Your task to perform on an android device: What is the news today? Image 0: 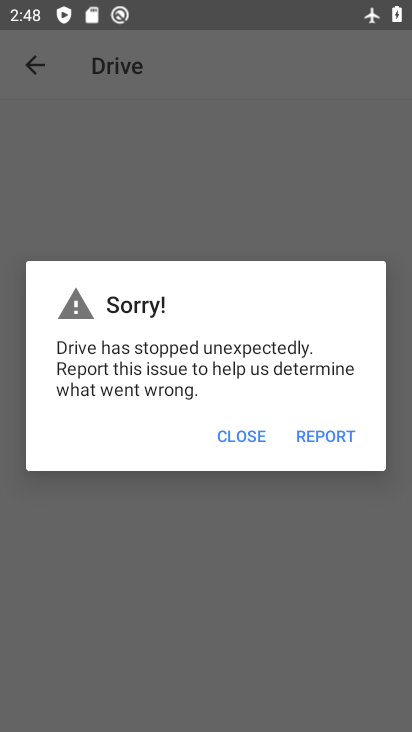
Step 0: press home button
Your task to perform on an android device: What is the news today? Image 1: 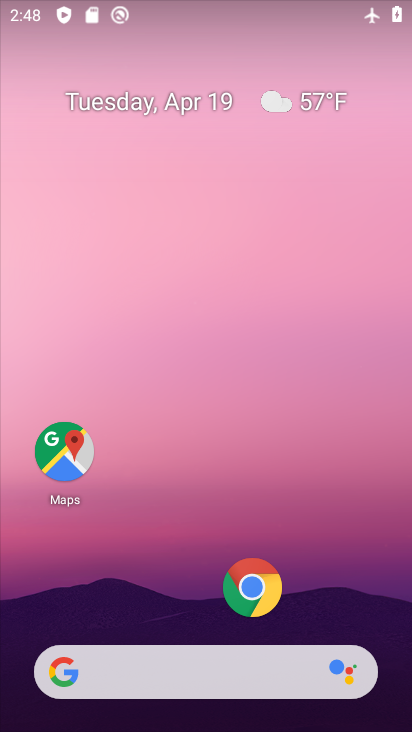
Step 1: click (201, 674)
Your task to perform on an android device: What is the news today? Image 2: 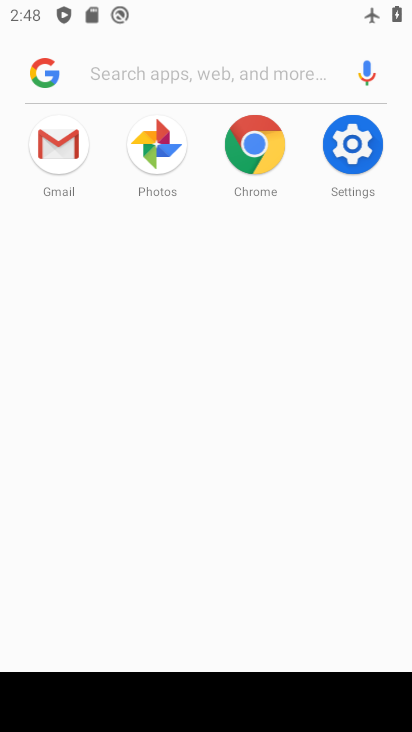
Step 2: click (199, 70)
Your task to perform on an android device: What is the news today? Image 3: 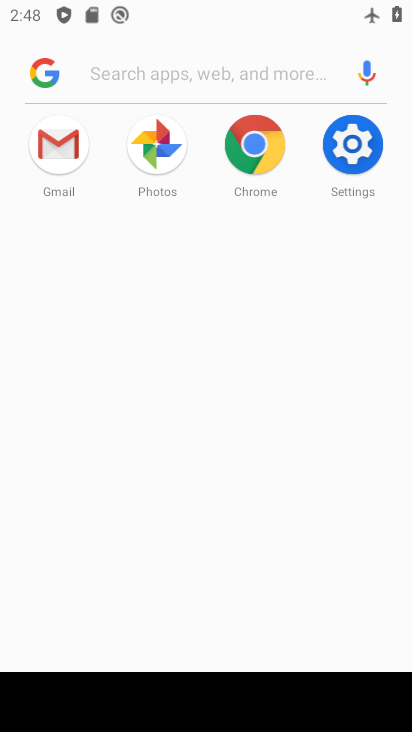
Step 3: type "news today"
Your task to perform on an android device: What is the news today? Image 4: 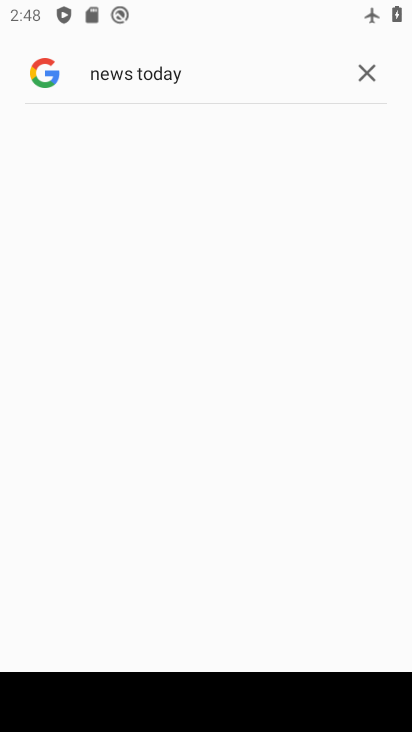
Step 4: task complete